Your task to perform on an android device: turn on priority inbox in the gmail app Image 0: 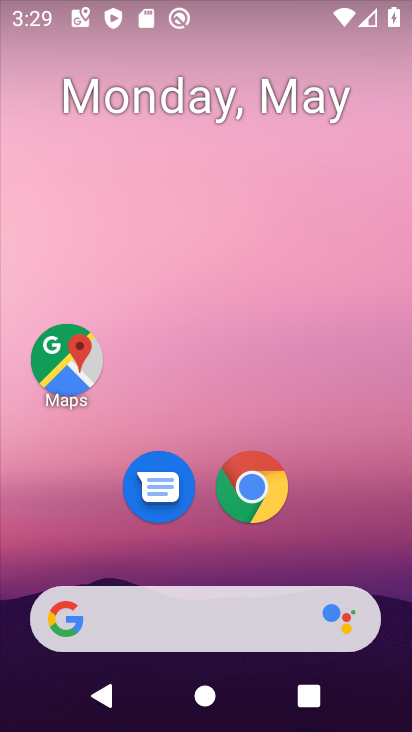
Step 0: drag from (157, 498) to (185, 306)
Your task to perform on an android device: turn on priority inbox in the gmail app Image 1: 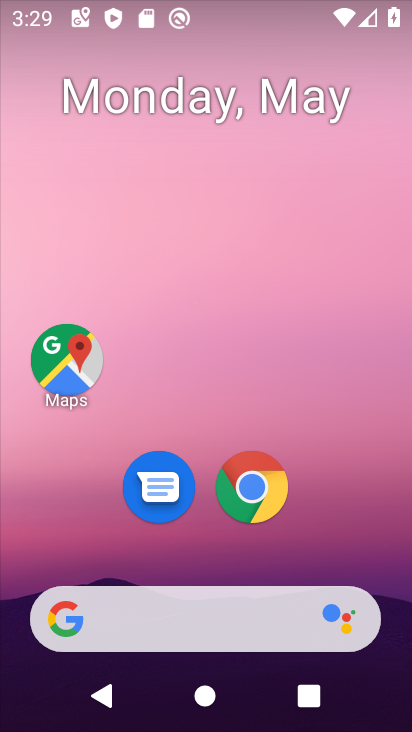
Step 1: drag from (219, 549) to (230, 241)
Your task to perform on an android device: turn on priority inbox in the gmail app Image 2: 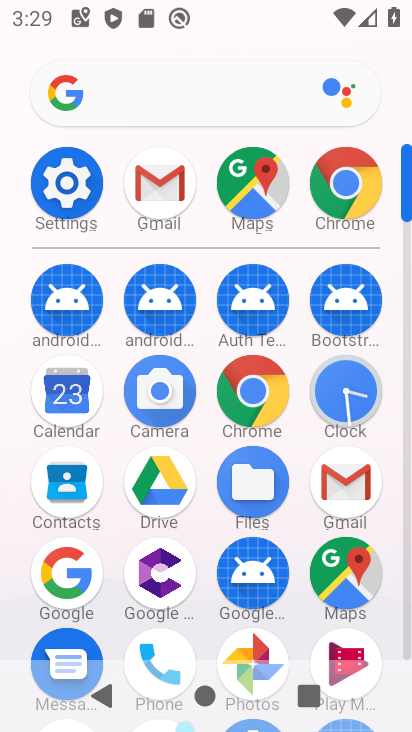
Step 2: click (158, 207)
Your task to perform on an android device: turn on priority inbox in the gmail app Image 3: 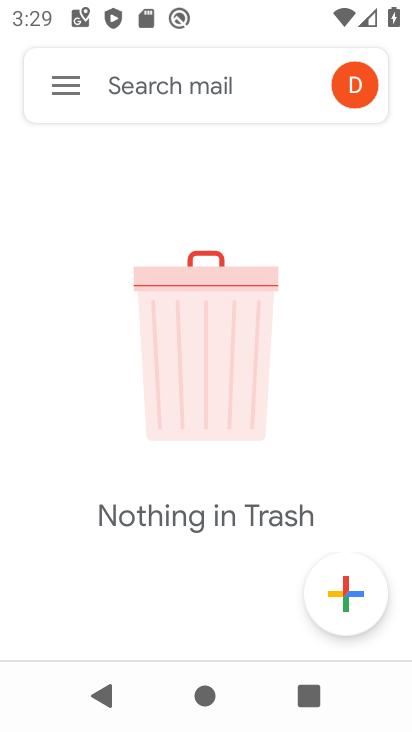
Step 3: click (66, 91)
Your task to perform on an android device: turn on priority inbox in the gmail app Image 4: 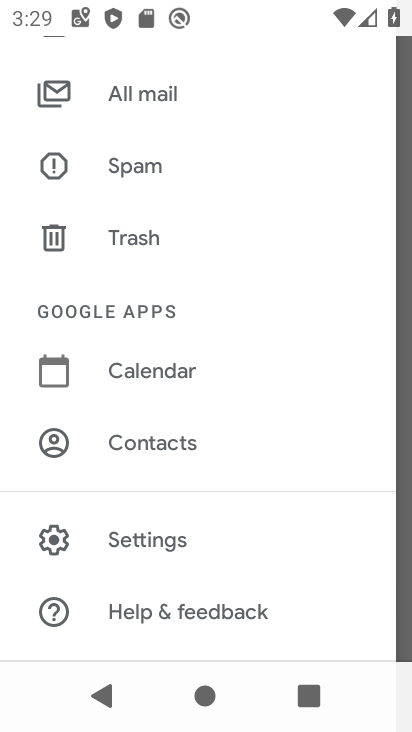
Step 4: click (150, 543)
Your task to perform on an android device: turn on priority inbox in the gmail app Image 5: 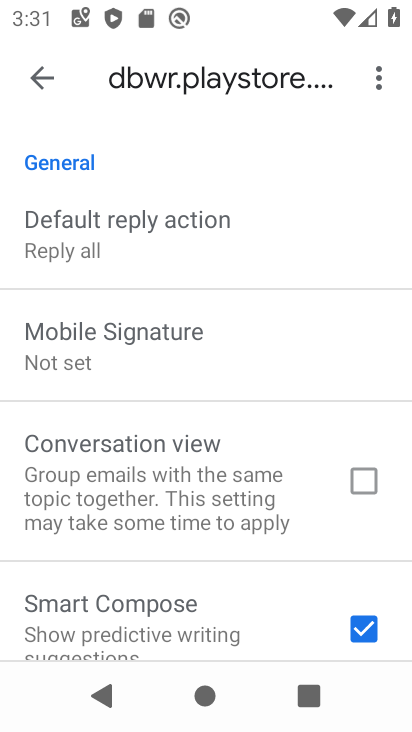
Step 5: drag from (115, 183) to (120, 599)
Your task to perform on an android device: turn on priority inbox in the gmail app Image 6: 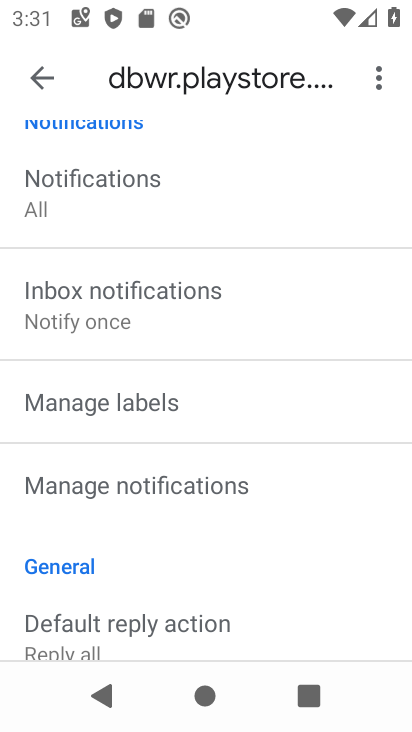
Step 6: drag from (66, 166) to (121, 601)
Your task to perform on an android device: turn on priority inbox in the gmail app Image 7: 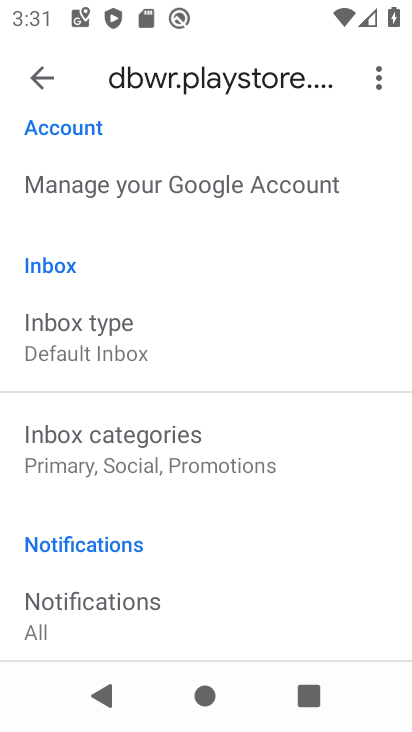
Step 7: click (69, 331)
Your task to perform on an android device: turn on priority inbox in the gmail app Image 8: 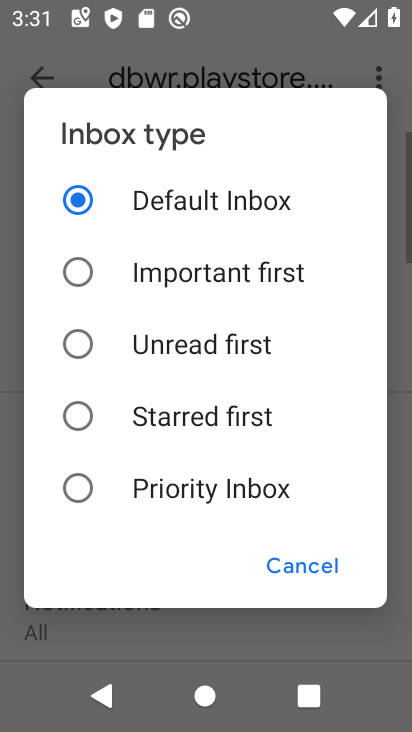
Step 8: click (151, 490)
Your task to perform on an android device: turn on priority inbox in the gmail app Image 9: 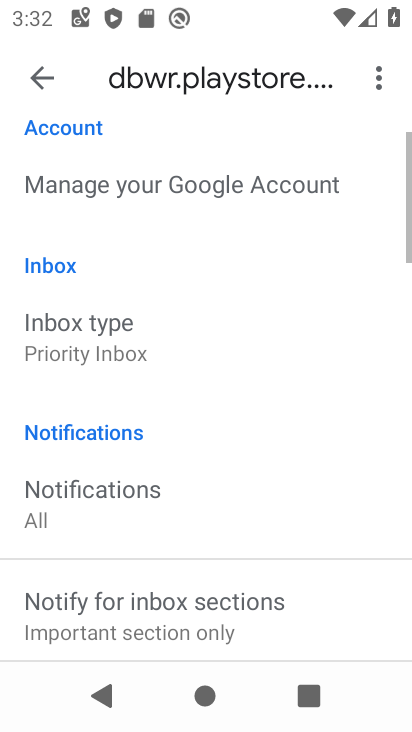
Step 9: task complete